Your task to perform on an android device: Open Youtube and go to the subscriptions tab Image 0: 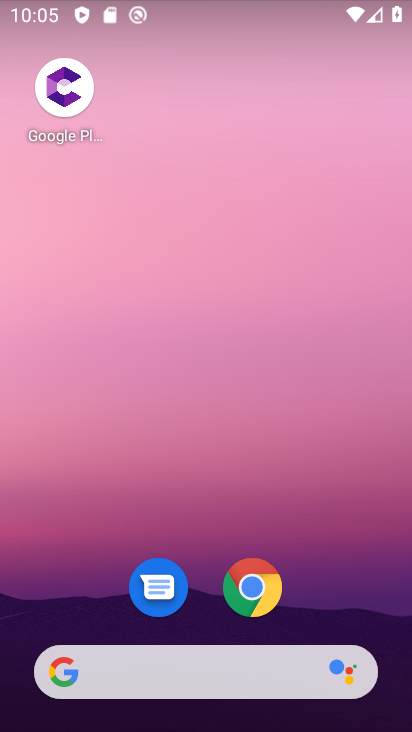
Step 0: drag from (338, 592) to (275, 1)
Your task to perform on an android device: Open Youtube and go to the subscriptions tab Image 1: 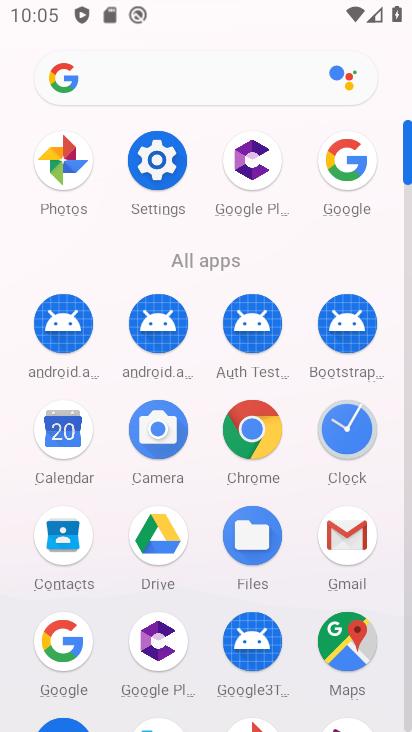
Step 1: drag from (275, 0) to (208, 2)
Your task to perform on an android device: Open Youtube and go to the subscriptions tab Image 2: 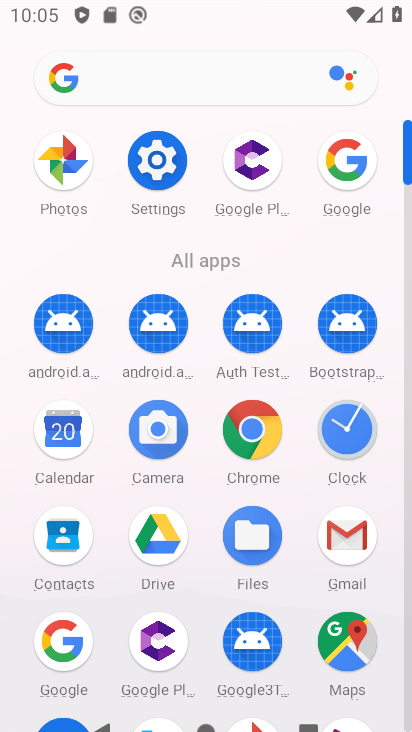
Step 2: drag from (201, 264) to (181, 6)
Your task to perform on an android device: Open Youtube and go to the subscriptions tab Image 3: 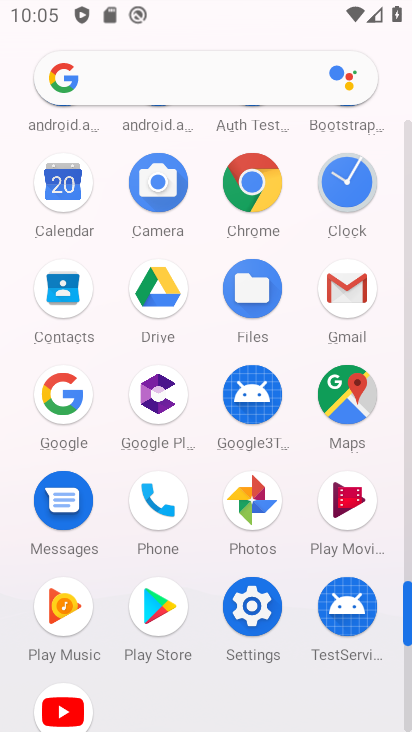
Step 3: click (50, 698)
Your task to perform on an android device: Open Youtube and go to the subscriptions tab Image 4: 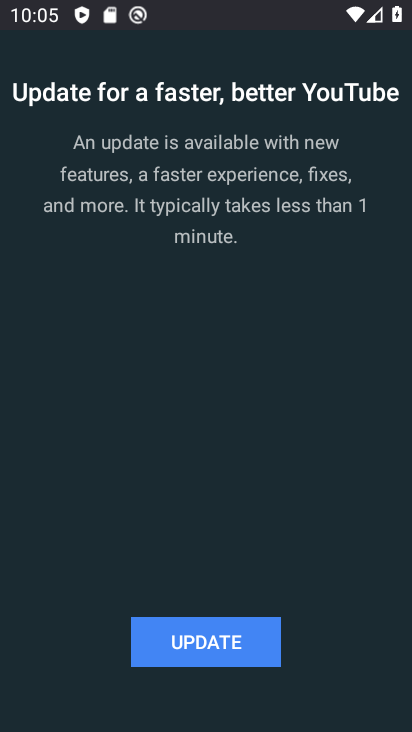
Step 4: click (243, 657)
Your task to perform on an android device: Open Youtube and go to the subscriptions tab Image 5: 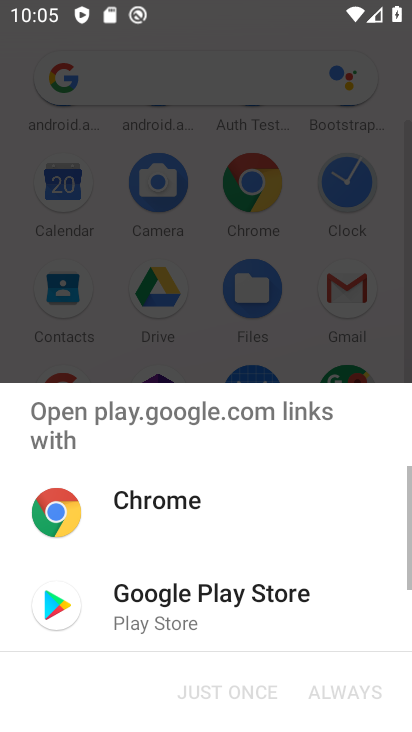
Step 5: click (158, 632)
Your task to perform on an android device: Open Youtube and go to the subscriptions tab Image 6: 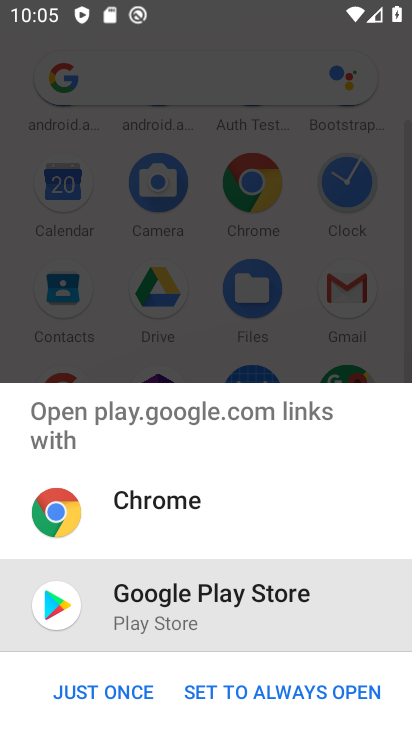
Step 6: click (125, 698)
Your task to perform on an android device: Open Youtube and go to the subscriptions tab Image 7: 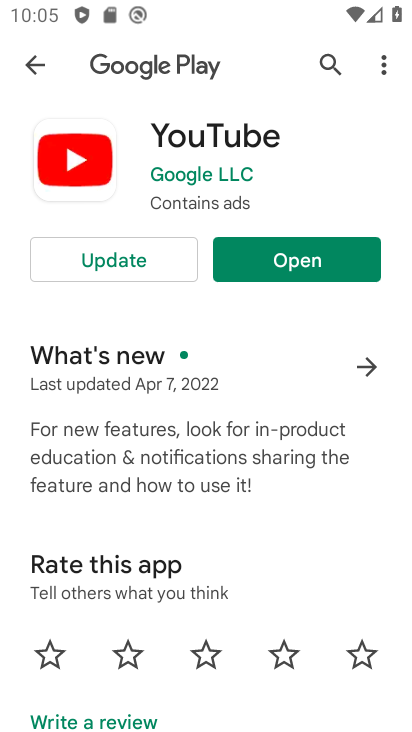
Step 7: click (295, 255)
Your task to perform on an android device: Open Youtube and go to the subscriptions tab Image 8: 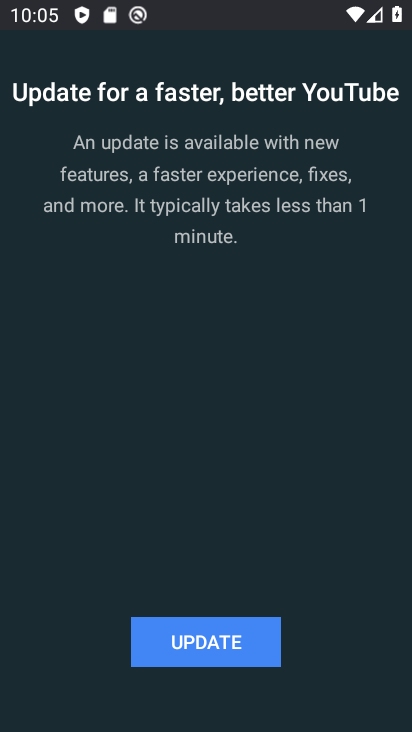
Step 8: click (223, 657)
Your task to perform on an android device: Open Youtube and go to the subscriptions tab Image 9: 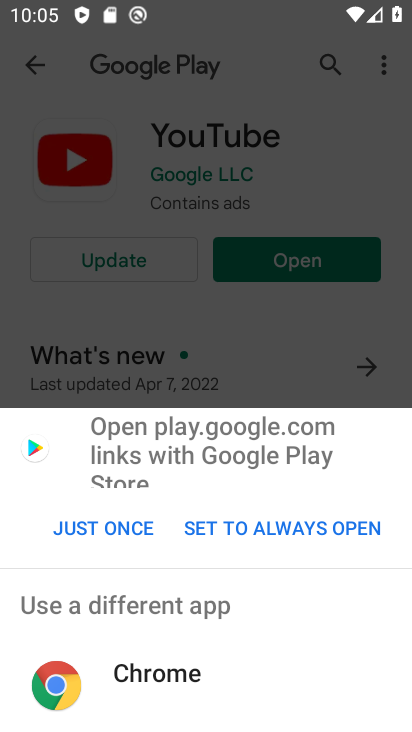
Step 9: click (104, 525)
Your task to perform on an android device: Open Youtube and go to the subscriptions tab Image 10: 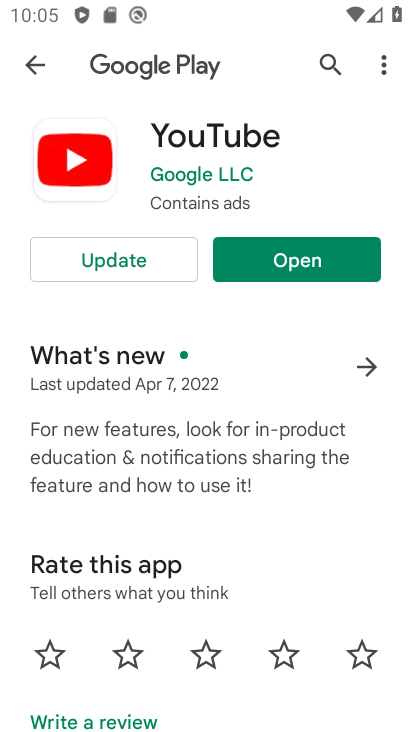
Step 10: click (117, 261)
Your task to perform on an android device: Open Youtube and go to the subscriptions tab Image 11: 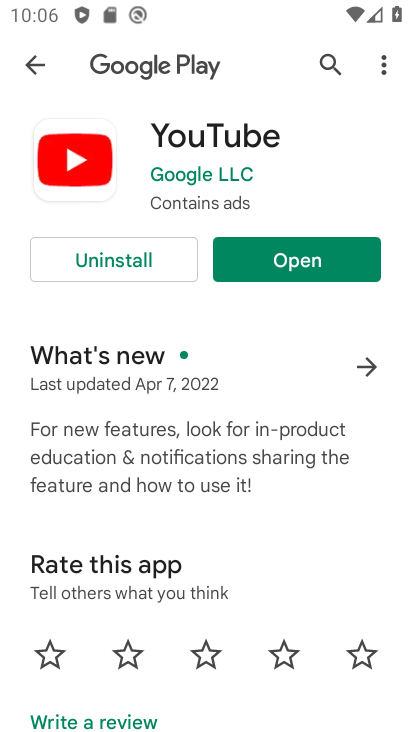
Step 11: click (324, 263)
Your task to perform on an android device: Open Youtube and go to the subscriptions tab Image 12: 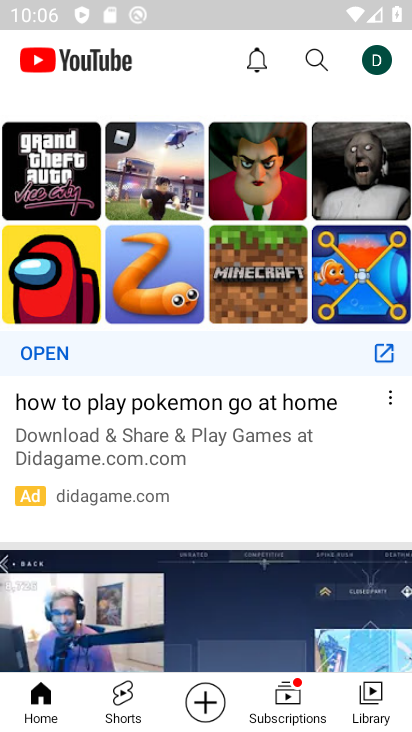
Step 12: click (286, 703)
Your task to perform on an android device: Open Youtube and go to the subscriptions tab Image 13: 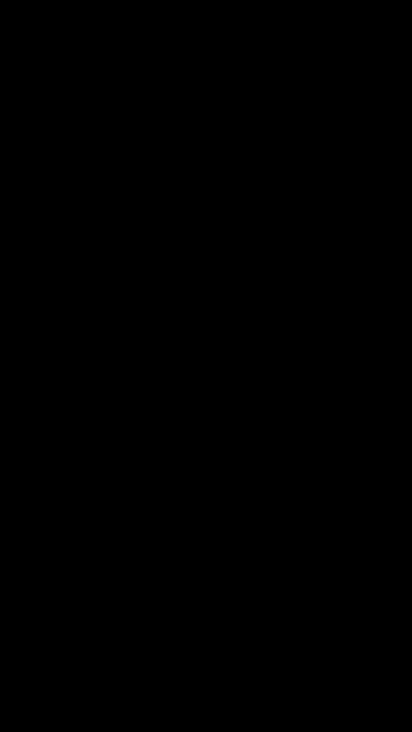
Step 13: task complete